Your task to perform on an android device: open sync settings in chrome Image 0: 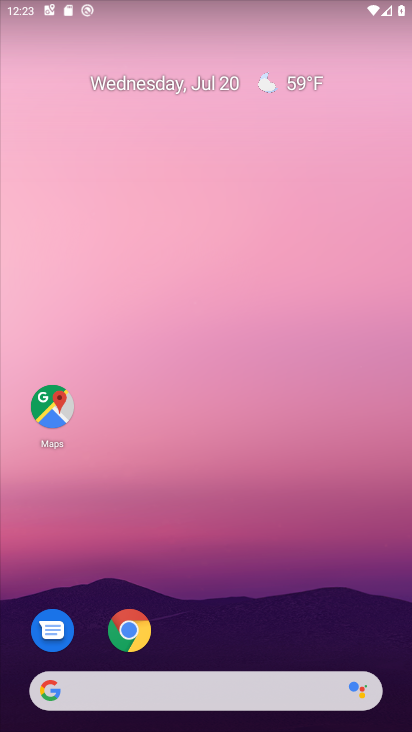
Step 0: click (136, 634)
Your task to perform on an android device: open sync settings in chrome Image 1: 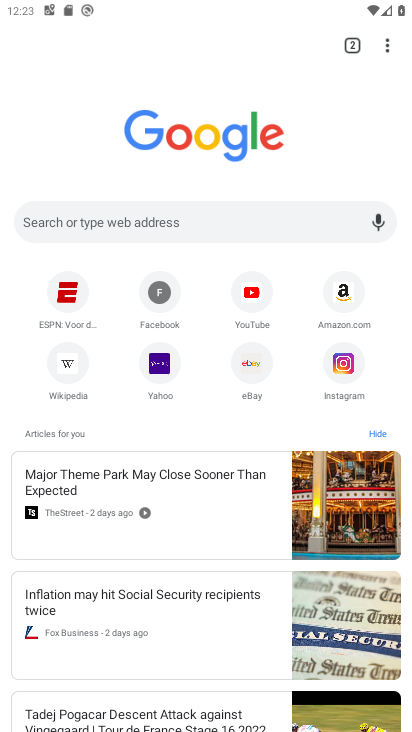
Step 1: click (385, 51)
Your task to perform on an android device: open sync settings in chrome Image 2: 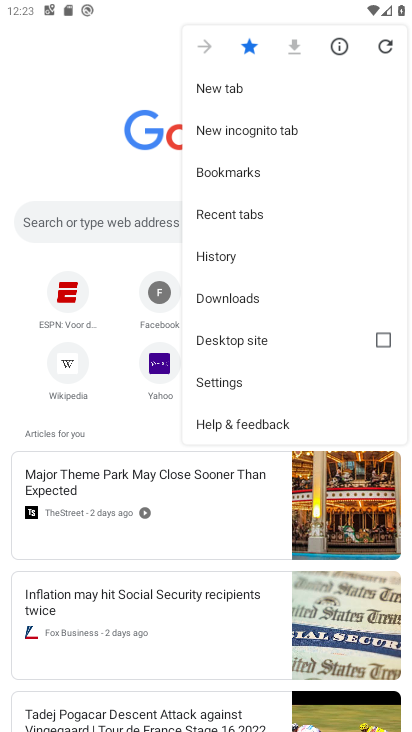
Step 2: click (224, 384)
Your task to perform on an android device: open sync settings in chrome Image 3: 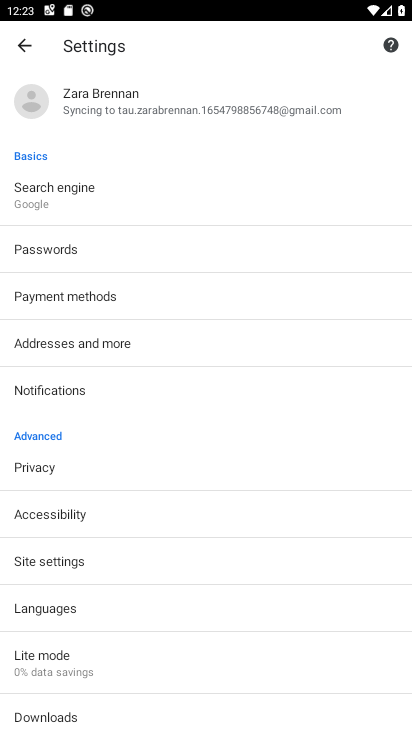
Step 3: click (93, 97)
Your task to perform on an android device: open sync settings in chrome Image 4: 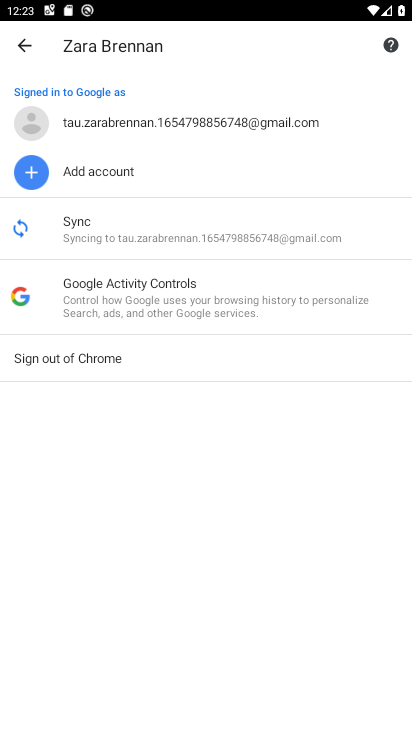
Step 4: click (78, 239)
Your task to perform on an android device: open sync settings in chrome Image 5: 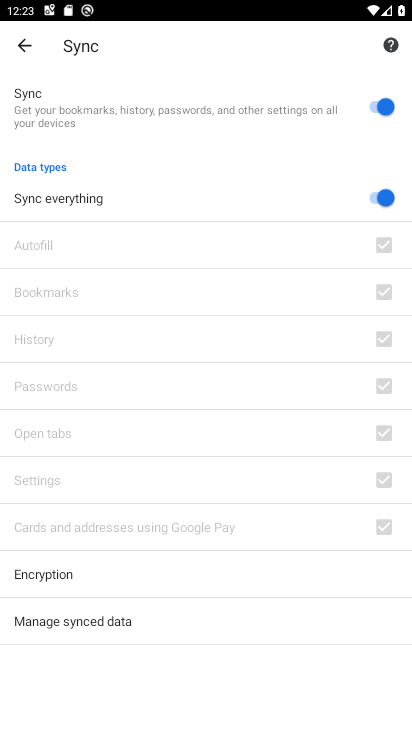
Step 5: task complete